Your task to perform on an android device: Go to ESPN.com Image 0: 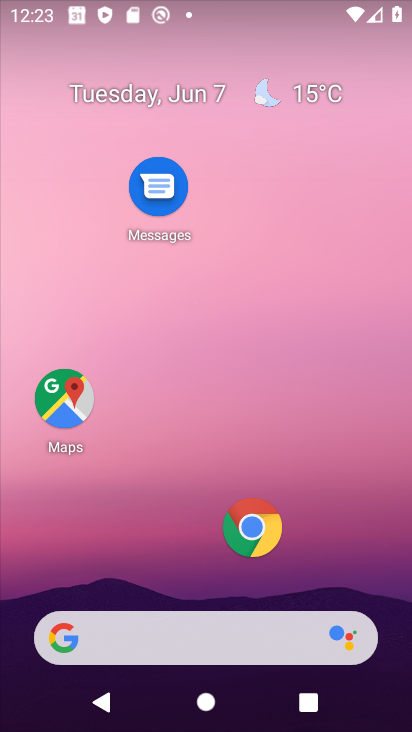
Step 0: click (255, 528)
Your task to perform on an android device: Go to ESPN.com Image 1: 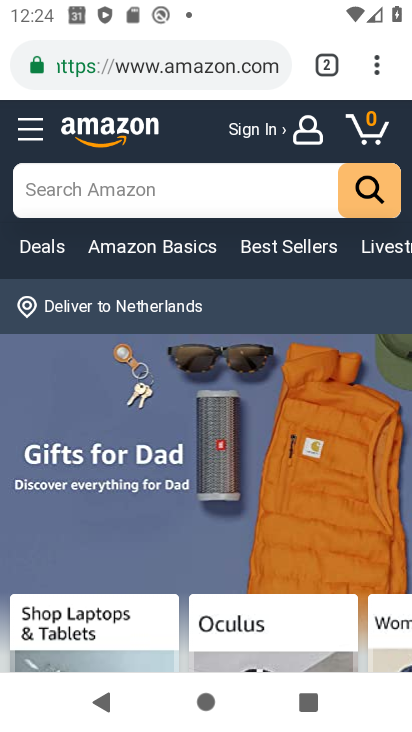
Step 1: click (332, 69)
Your task to perform on an android device: Go to ESPN.com Image 2: 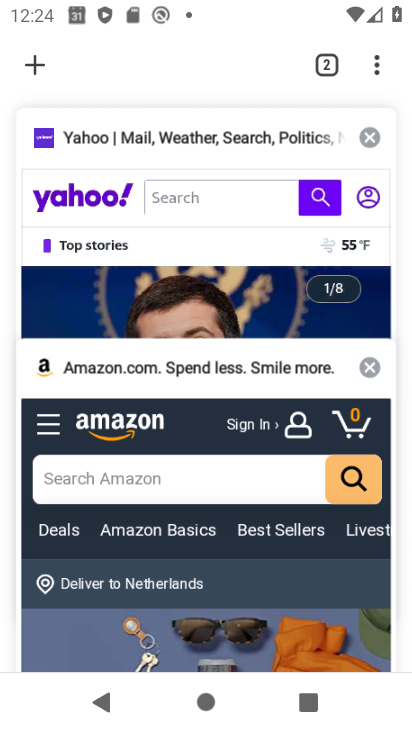
Step 2: click (374, 142)
Your task to perform on an android device: Go to ESPN.com Image 3: 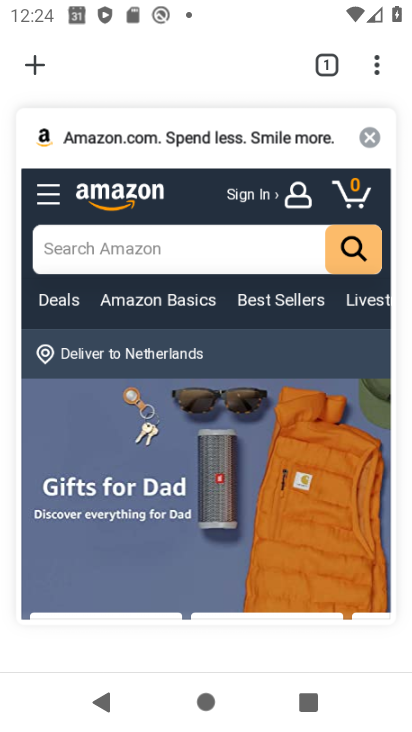
Step 3: click (46, 62)
Your task to perform on an android device: Go to ESPN.com Image 4: 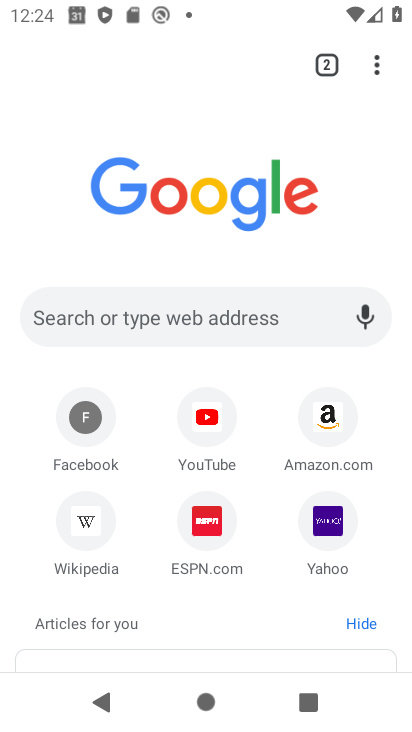
Step 4: click (204, 540)
Your task to perform on an android device: Go to ESPN.com Image 5: 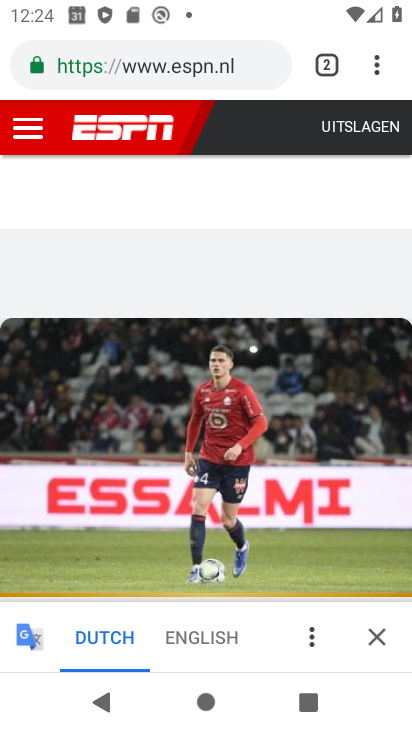
Step 5: task complete